Your task to perform on an android device: Show me productivity apps on the Play Store Image 0: 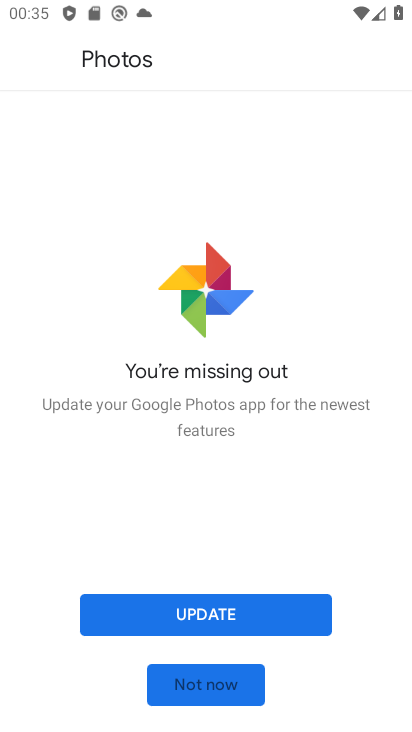
Step 0: press back button
Your task to perform on an android device: Show me productivity apps on the Play Store Image 1: 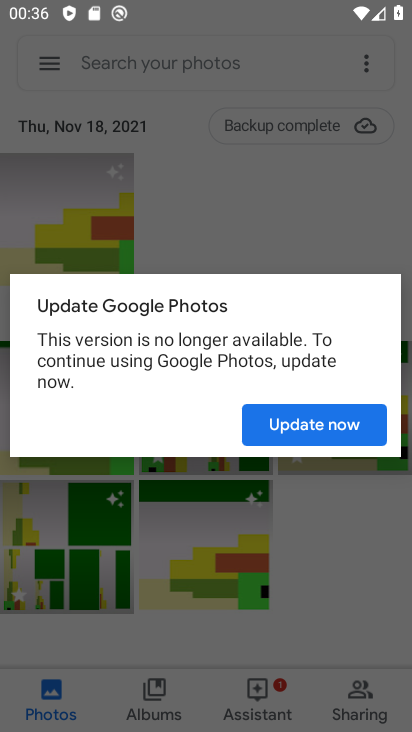
Step 1: press home button
Your task to perform on an android device: Show me productivity apps on the Play Store Image 2: 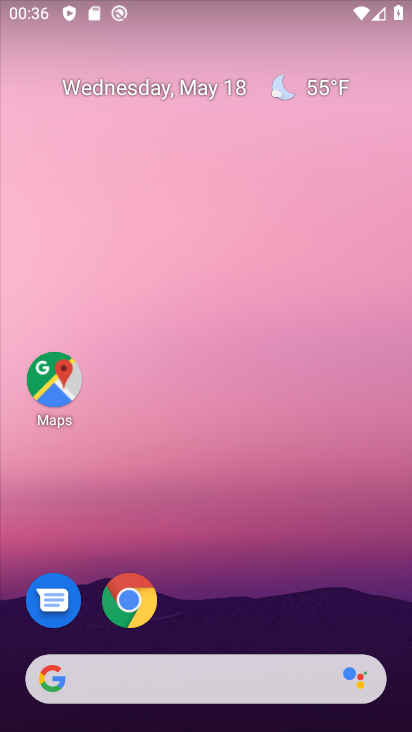
Step 2: drag from (191, 641) to (237, 3)
Your task to perform on an android device: Show me productivity apps on the Play Store Image 3: 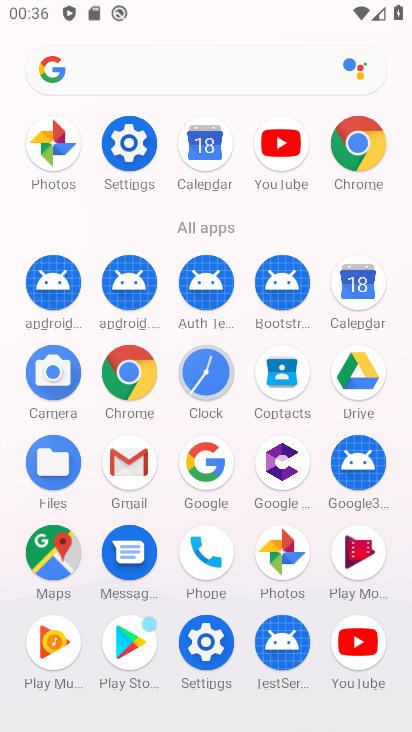
Step 3: click (119, 640)
Your task to perform on an android device: Show me productivity apps on the Play Store Image 4: 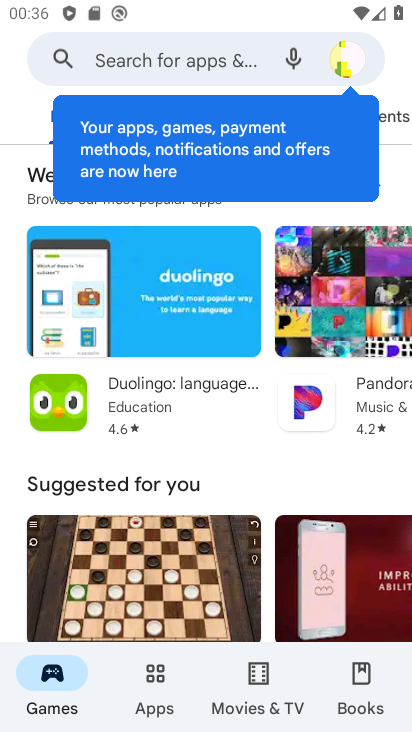
Step 4: click (161, 688)
Your task to perform on an android device: Show me productivity apps on the Play Store Image 5: 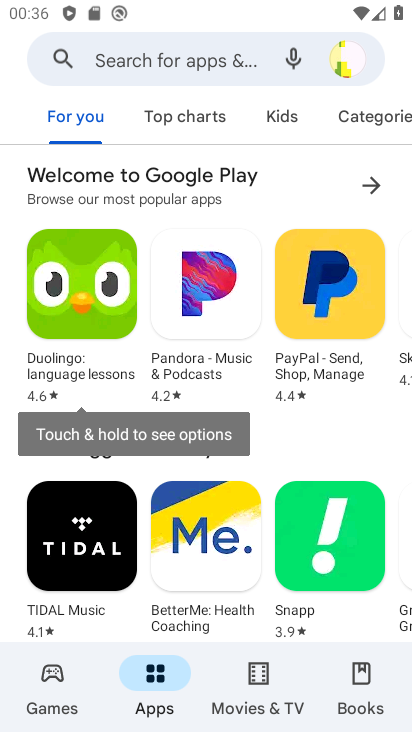
Step 5: click (368, 123)
Your task to perform on an android device: Show me productivity apps on the Play Store Image 6: 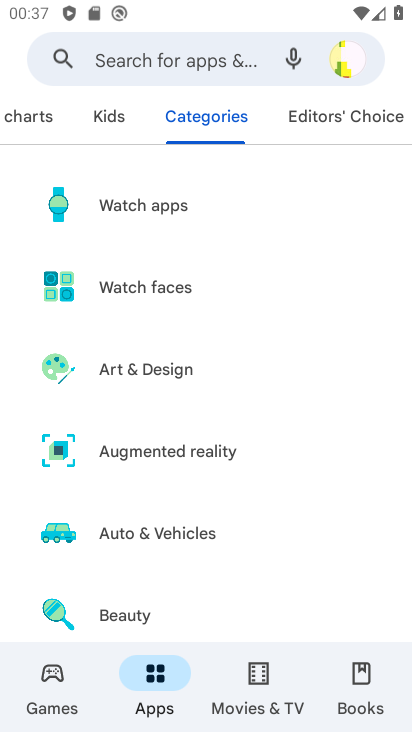
Step 6: drag from (174, 538) to (129, 138)
Your task to perform on an android device: Show me productivity apps on the Play Store Image 7: 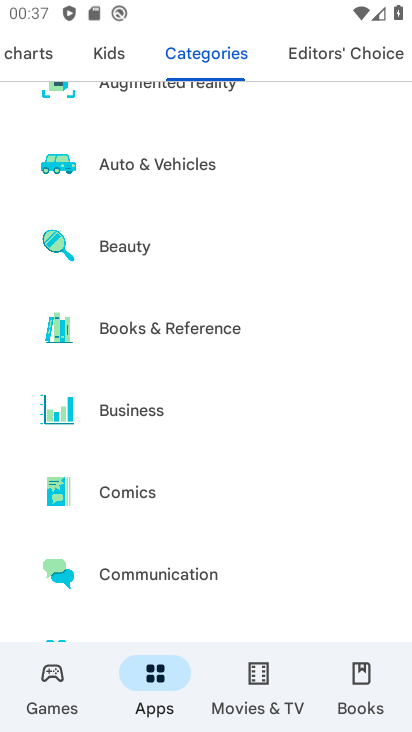
Step 7: drag from (157, 572) to (136, 136)
Your task to perform on an android device: Show me productivity apps on the Play Store Image 8: 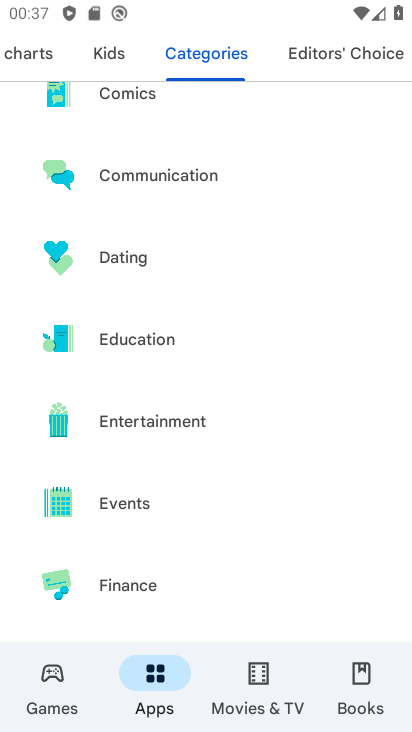
Step 8: drag from (151, 537) to (144, 118)
Your task to perform on an android device: Show me productivity apps on the Play Store Image 9: 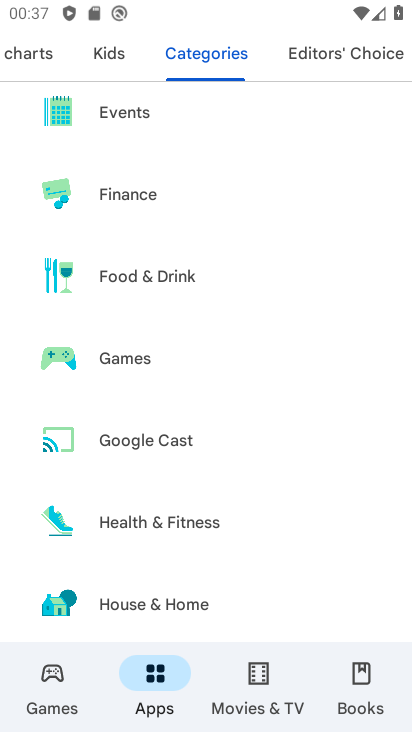
Step 9: drag from (150, 519) to (157, 46)
Your task to perform on an android device: Show me productivity apps on the Play Store Image 10: 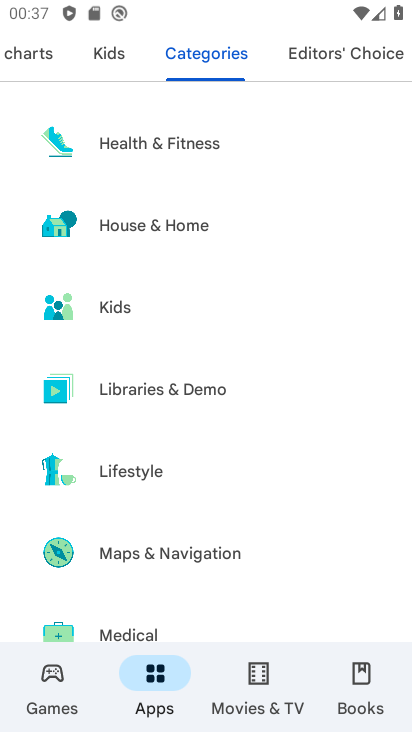
Step 10: drag from (197, 571) to (108, 5)
Your task to perform on an android device: Show me productivity apps on the Play Store Image 11: 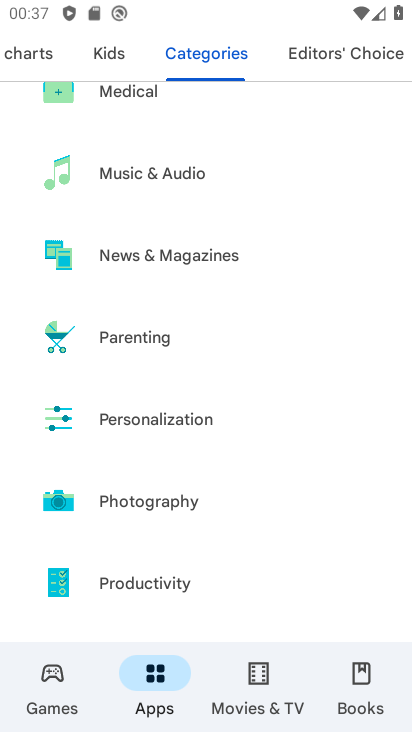
Step 11: click (171, 580)
Your task to perform on an android device: Show me productivity apps on the Play Store Image 12: 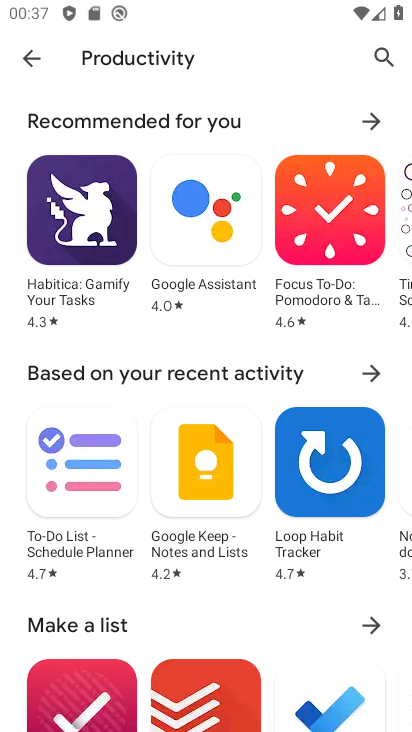
Step 12: task complete